Your task to perform on an android device: Open calendar and show me the third week of next month Image 0: 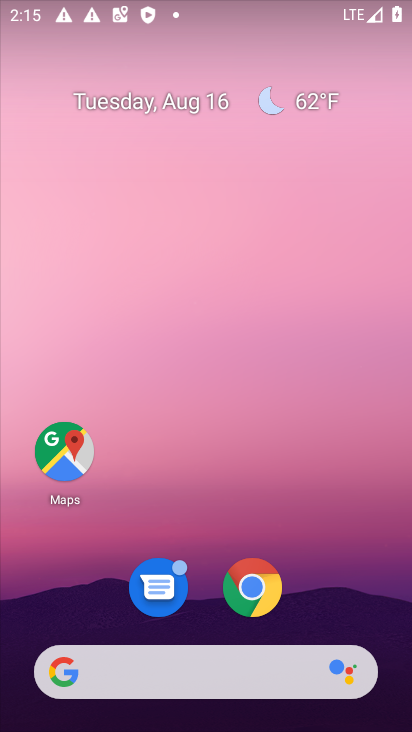
Step 0: drag from (94, 570) to (187, 59)
Your task to perform on an android device: Open calendar and show me the third week of next month Image 1: 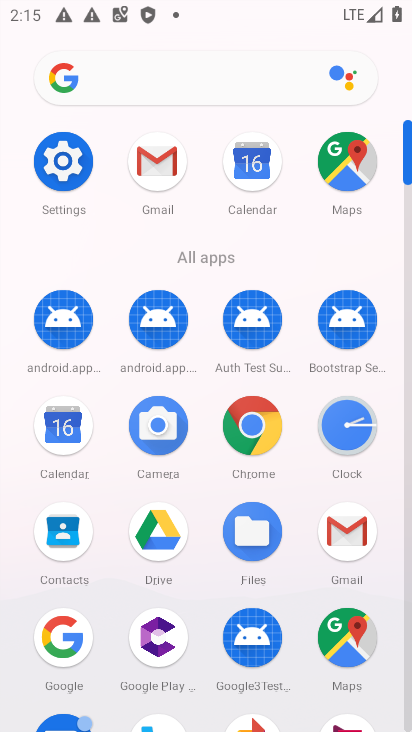
Step 1: click (255, 168)
Your task to perform on an android device: Open calendar and show me the third week of next month Image 2: 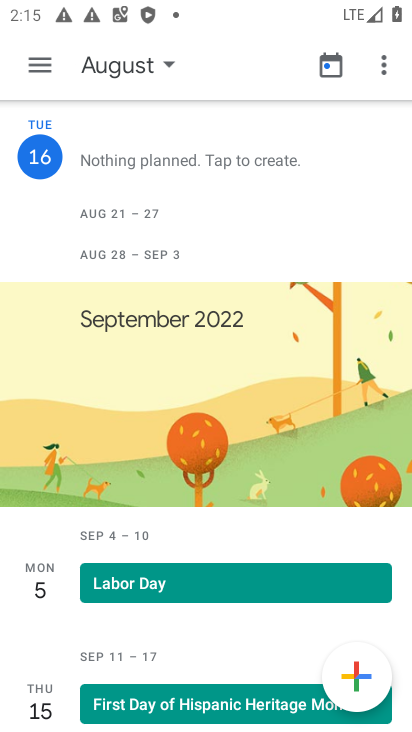
Step 2: click (138, 64)
Your task to perform on an android device: Open calendar and show me the third week of next month Image 3: 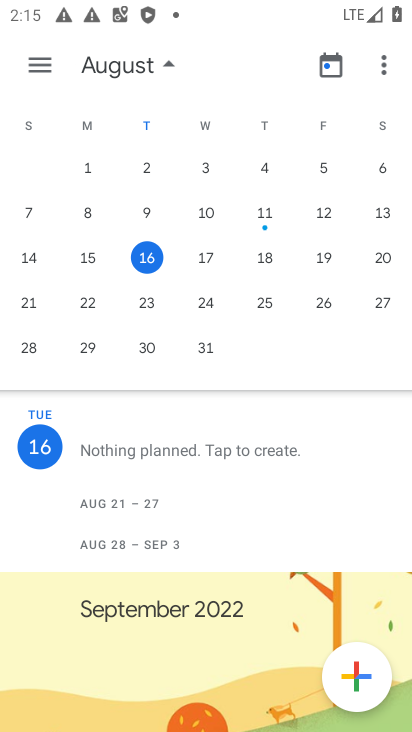
Step 3: drag from (388, 216) to (16, 237)
Your task to perform on an android device: Open calendar and show me the third week of next month Image 4: 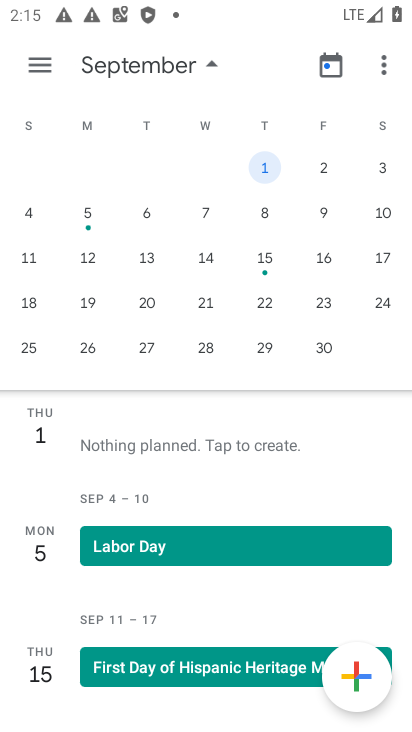
Step 4: click (86, 296)
Your task to perform on an android device: Open calendar and show me the third week of next month Image 5: 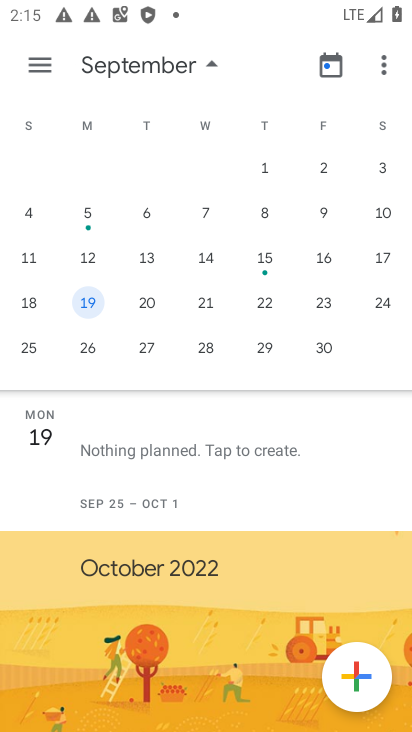
Step 5: task complete